Your task to perform on an android device: Show me the best rated vacuum on Walmart. Image 0: 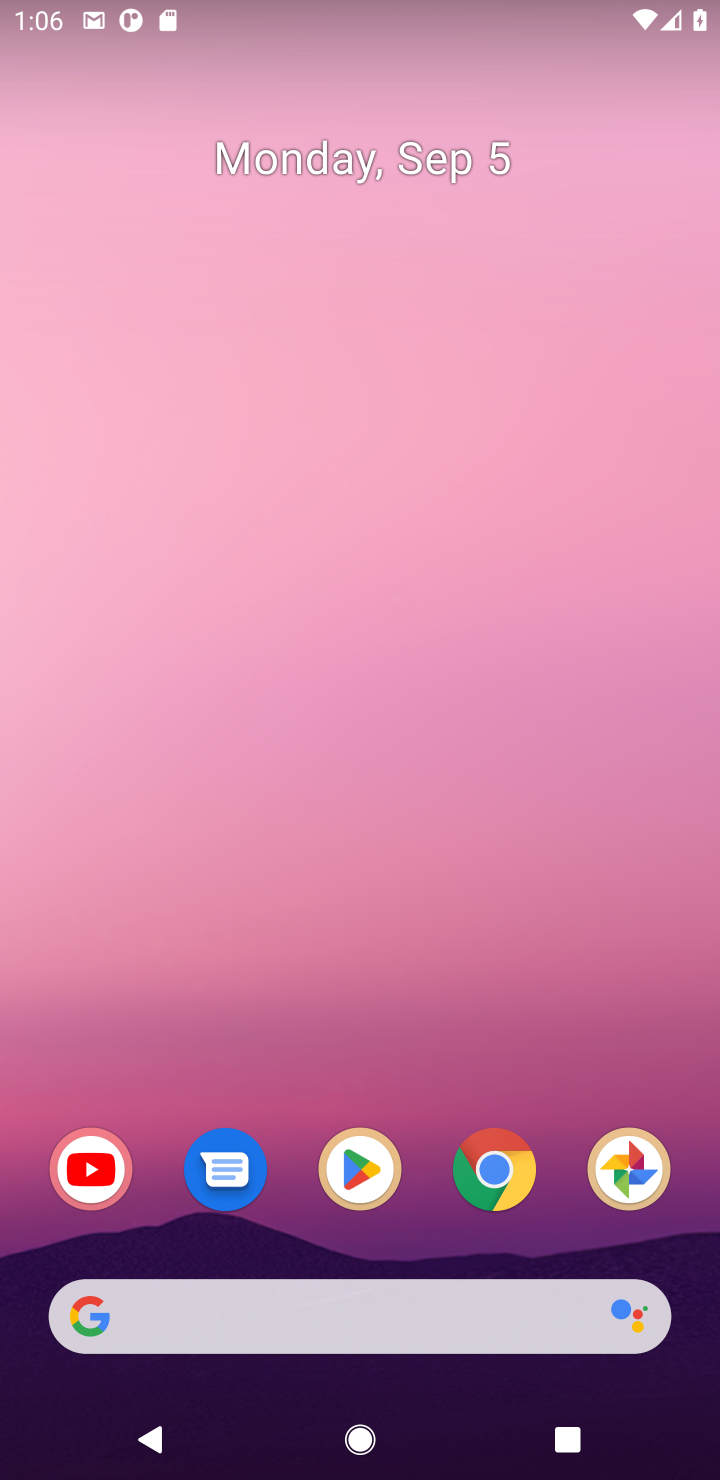
Step 0: click (510, 1203)
Your task to perform on an android device: Show me the best rated vacuum on Walmart. Image 1: 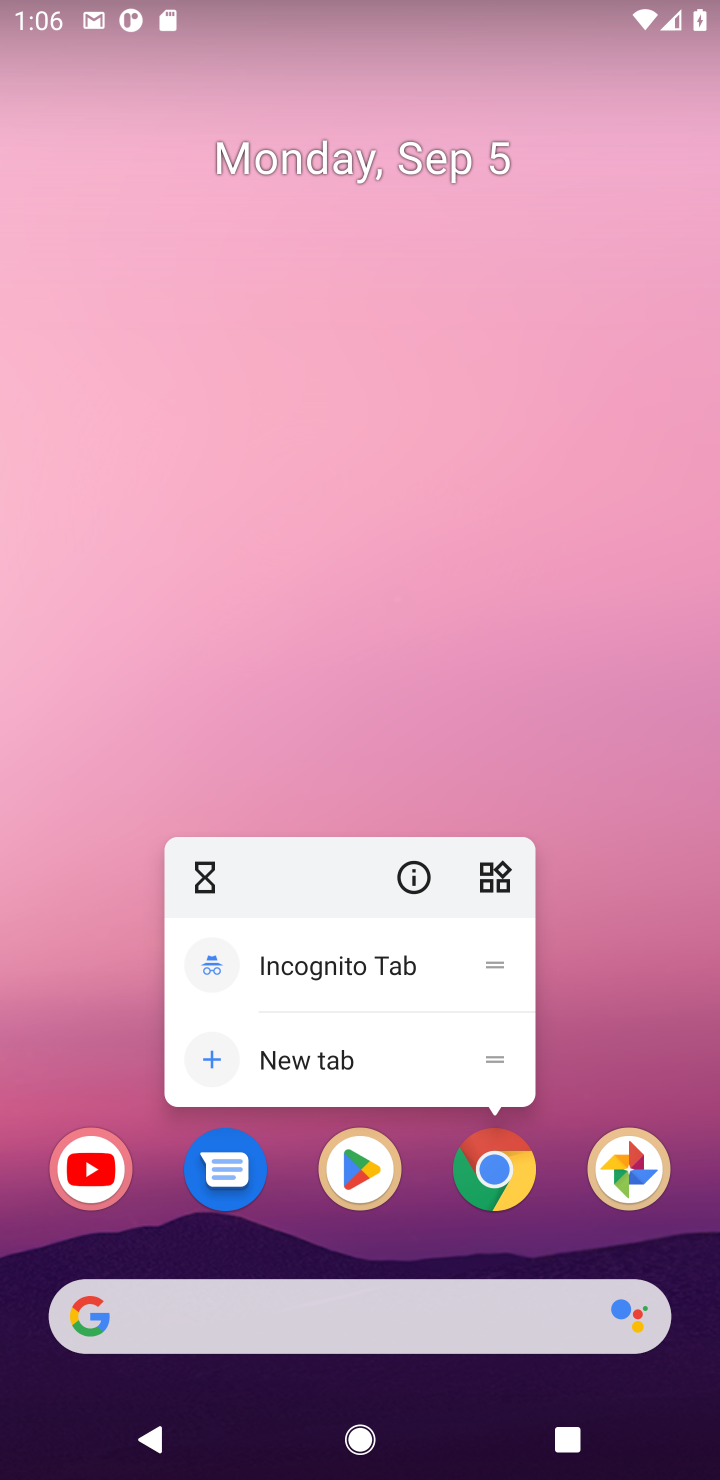
Step 1: task complete